Your task to perform on an android device: toggle pop-ups in chrome Image 0: 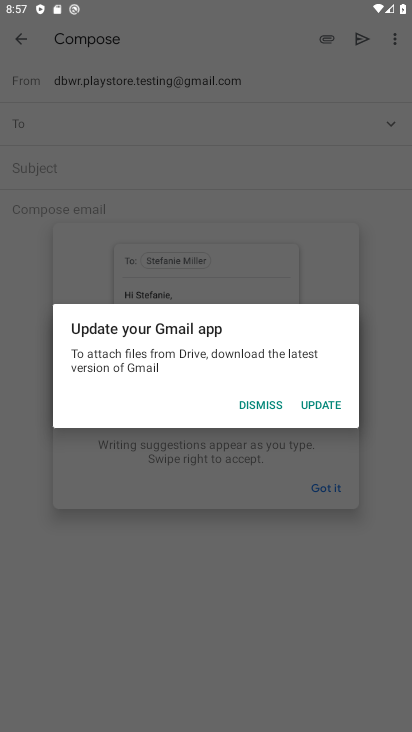
Step 0: press back button
Your task to perform on an android device: toggle pop-ups in chrome Image 1: 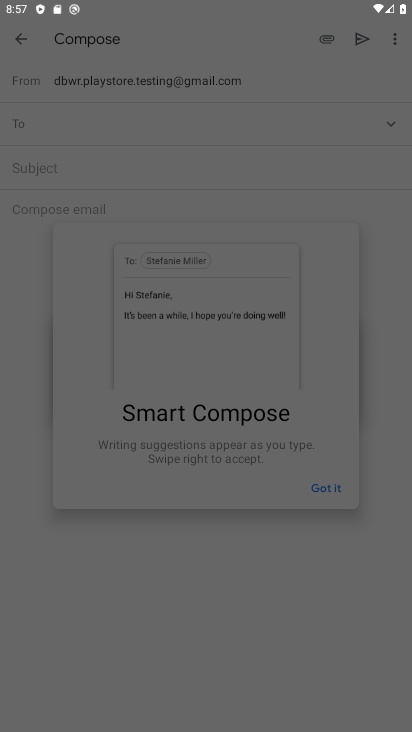
Step 1: press home button
Your task to perform on an android device: toggle pop-ups in chrome Image 2: 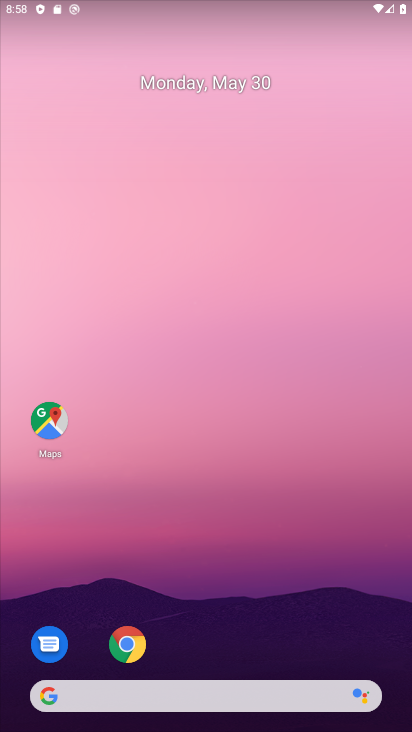
Step 2: click (133, 645)
Your task to perform on an android device: toggle pop-ups in chrome Image 3: 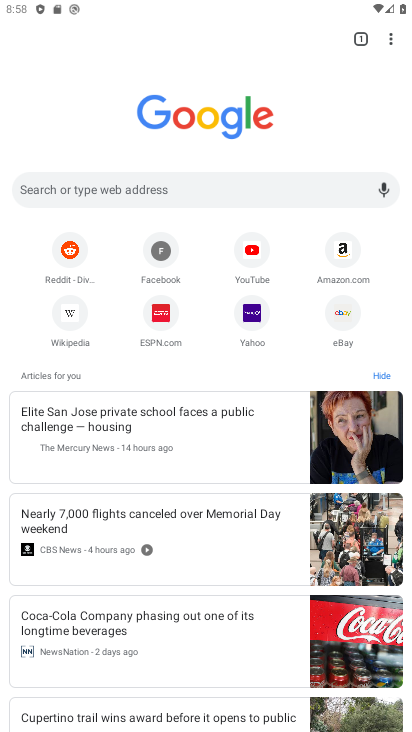
Step 3: drag from (389, 36) to (256, 327)
Your task to perform on an android device: toggle pop-ups in chrome Image 4: 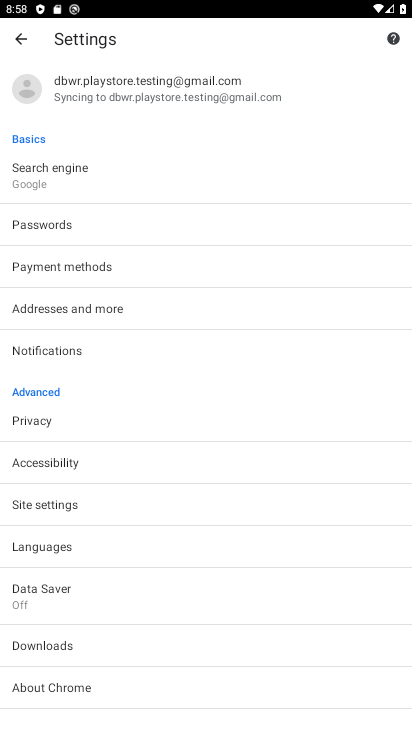
Step 4: click (48, 507)
Your task to perform on an android device: toggle pop-ups in chrome Image 5: 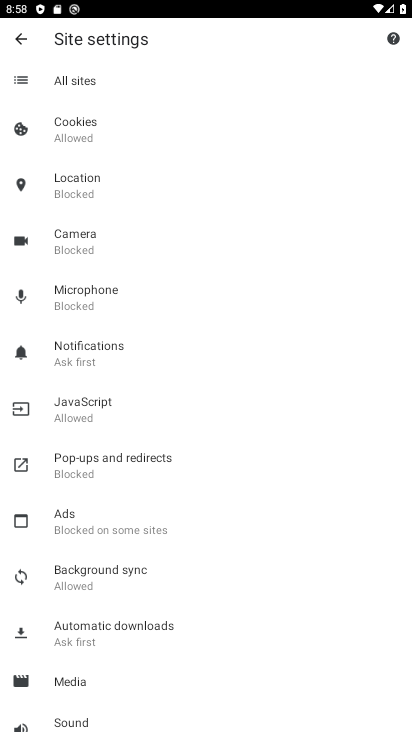
Step 5: click (114, 457)
Your task to perform on an android device: toggle pop-ups in chrome Image 6: 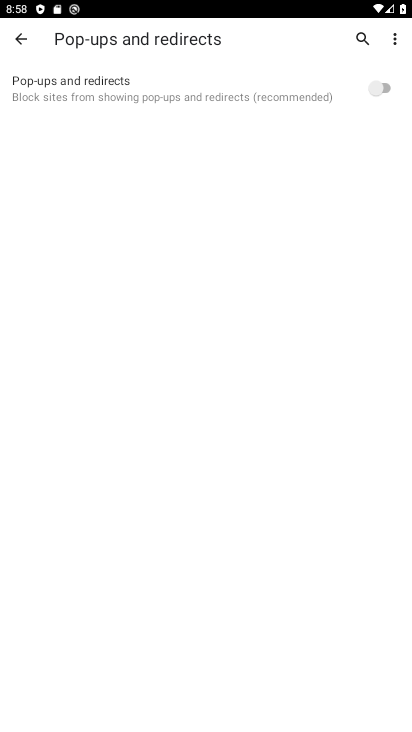
Step 6: click (381, 86)
Your task to perform on an android device: toggle pop-ups in chrome Image 7: 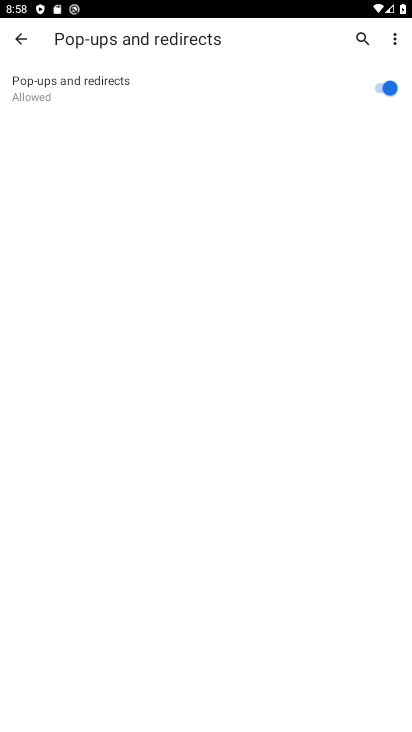
Step 7: task complete